Your task to perform on an android device: choose inbox layout in the gmail app Image 0: 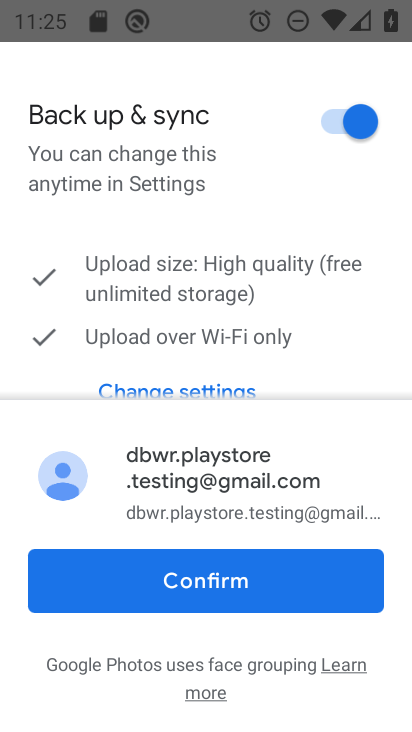
Step 0: press home button
Your task to perform on an android device: choose inbox layout in the gmail app Image 1: 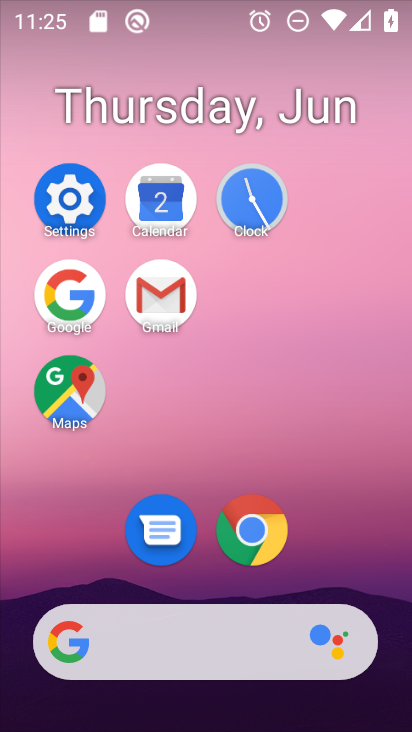
Step 1: click (176, 294)
Your task to perform on an android device: choose inbox layout in the gmail app Image 2: 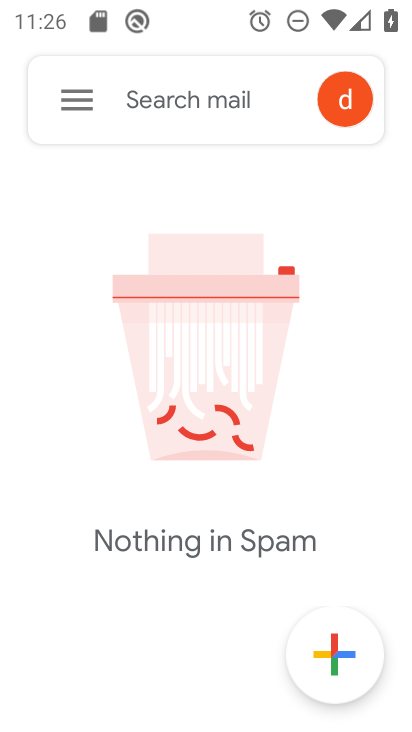
Step 2: click (67, 118)
Your task to perform on an android device: choose inbox layout in the gmail app Image 3: 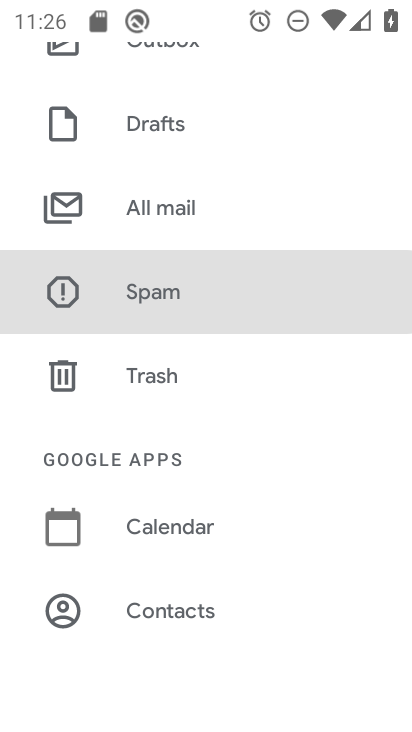
Step 3: drag from (197, 575) to (208, 207)
Your task to perform on an android device: choose inbox layout in the gmail app Image 4: 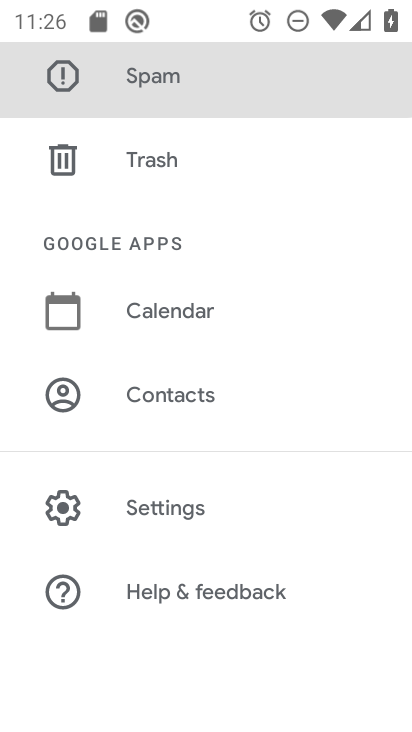
Step 4: click (227, 533)
Your task to perform on an android device: choose inbox layout in the gmail app Image 5: 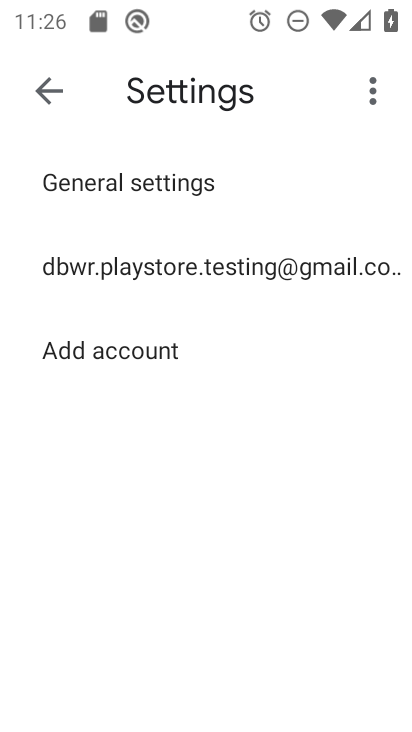
Step 5: click (188, 271)
Your task to perform on an android device: choose inbox layout in the gmail app Image 6: 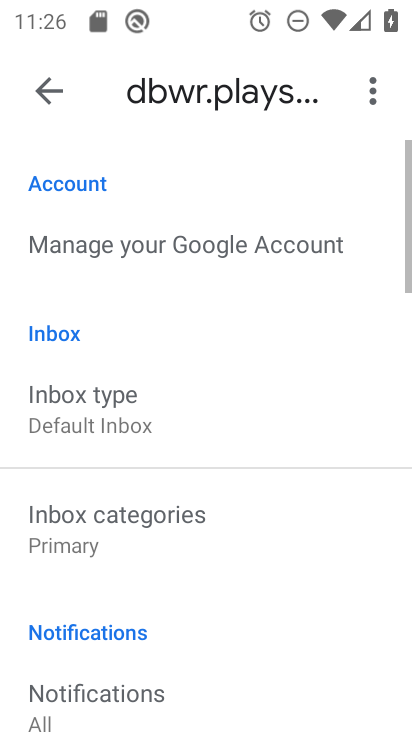
Step 6: click (149, 386)
Your task to perform on an android device: choose inbox layout in the gmail app Image 7: 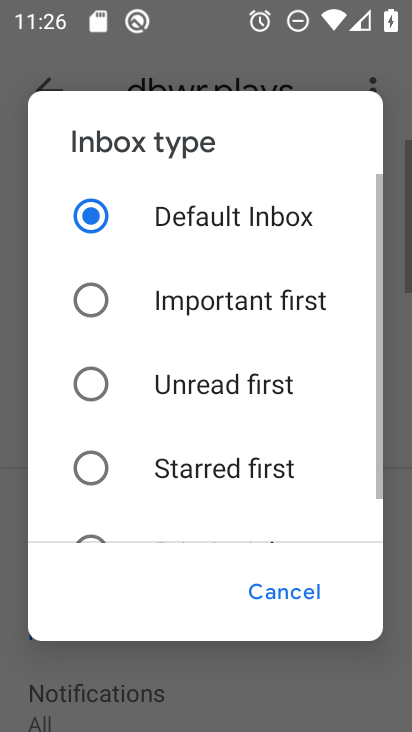
Step 7: task complete